Your task to perform on an android device: Do I have any events tomorrow? Image 0: 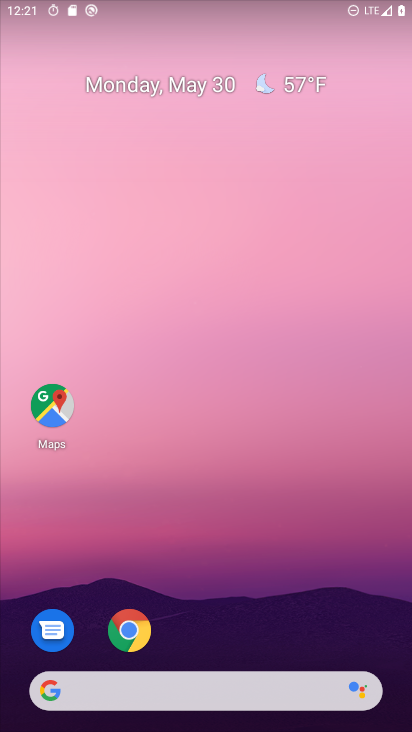
Step 0: drag from (223, 714) to (242, 230)
Your task to perform on an android device: Do I have any events tomorrow? Image 1: 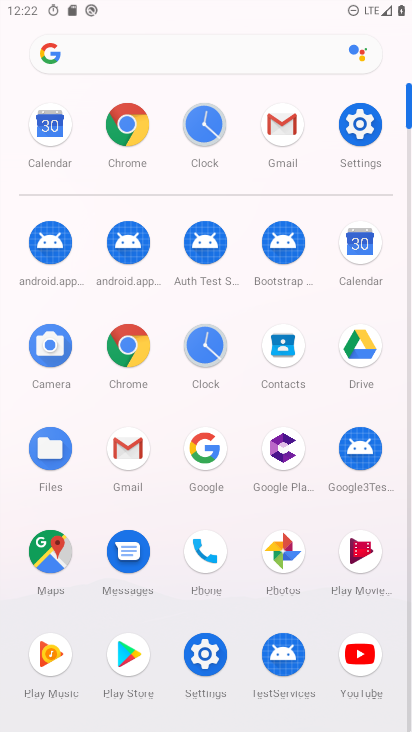
Step 1: click (50, 117)
Your task to perform on an android device: Do I have any events tomorrow? Image 2: 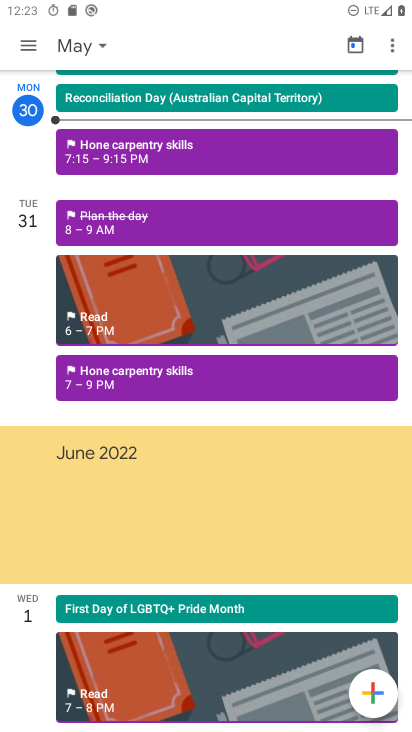
Step 2: click (25, 48)
Your task to perform on an android device: Do I have any events tomorrow? Image 3: 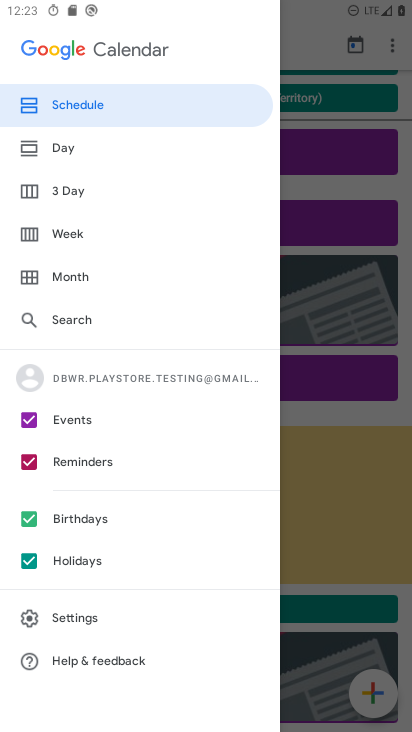
Step 3: click (72, 115)
Your task to perform on an android device: Do I have any events tomorrow? Image 4: 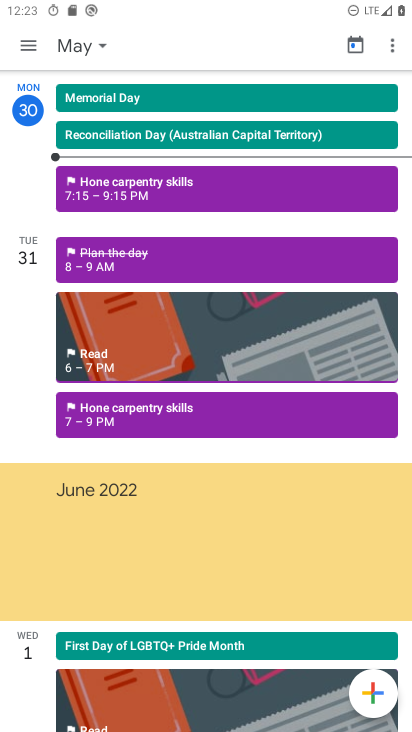
Step 4: task complete